Your task to perform on an android device: Go to notification settings Image 0: 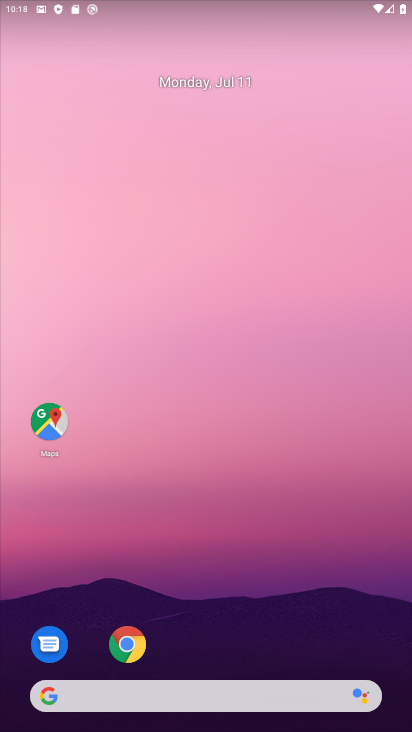
Step 0: drag from (255, 639) to (262, 139)
Your task to perform on an android device: Go to notification settings Image 1: 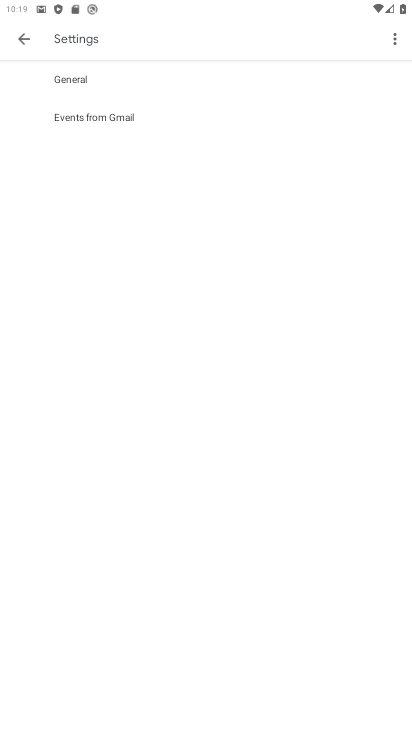
Step 1: press home button
Your task to perform on an android device: Go to notification settings Image 2: 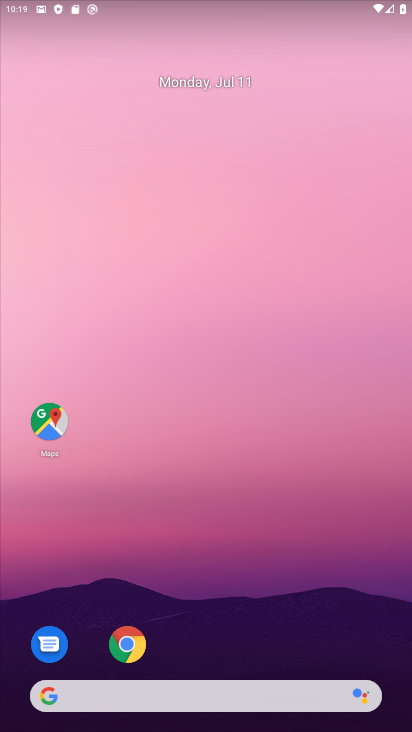
Step 2: drag from (237, 630) to (312, 210)
Your task to perform on an android device: Go to notification settings Image 3: 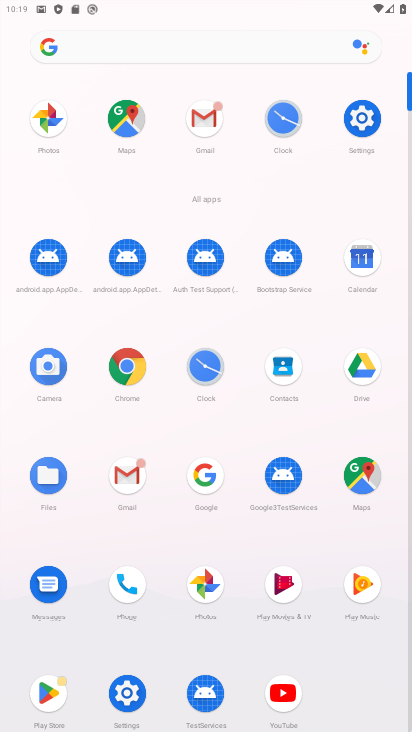
Step 3: click (376, 107)
Your task to perform on an android device: Go to notification settings Image 4: 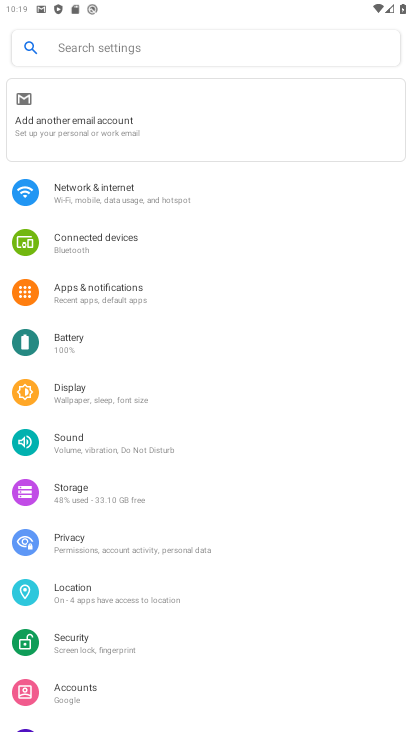
Step 4: click (128, 292)
Your task to perform on an android device: Go to notification settings Image 5: 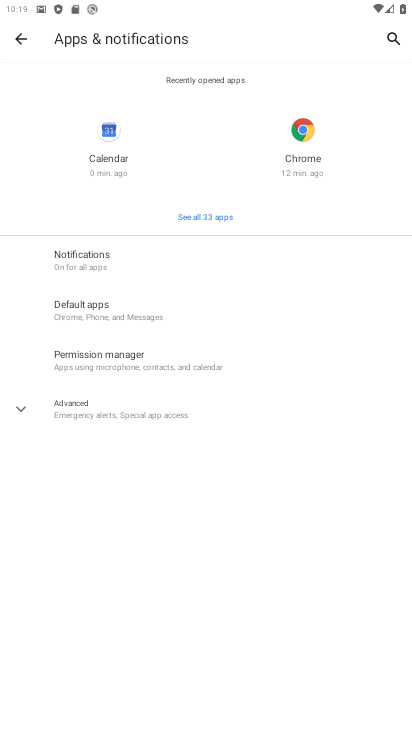
Step 5: click (106, 254)
Your task to perform on an android device: Go to notification settings Image 6: 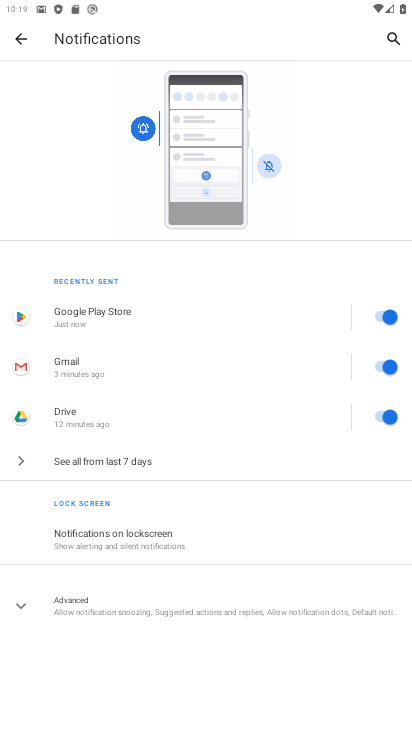
Step 6: task complete